Your task to perform on an android device: Turn on the flashlight Image 0: 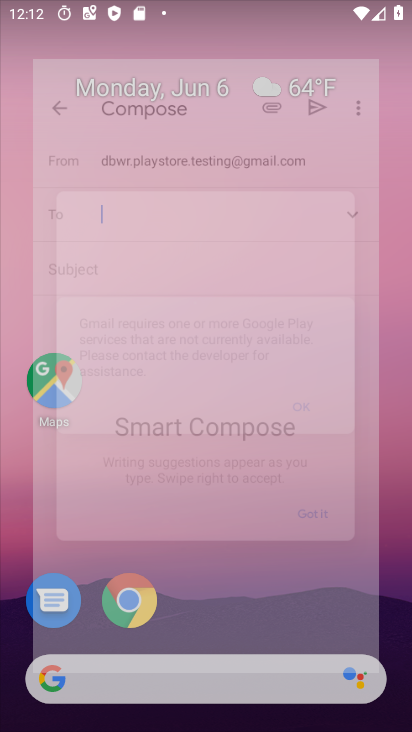
Step 0: click (212, 258)
Your task to perform on an android device: Turn on the flashlight Image 1: 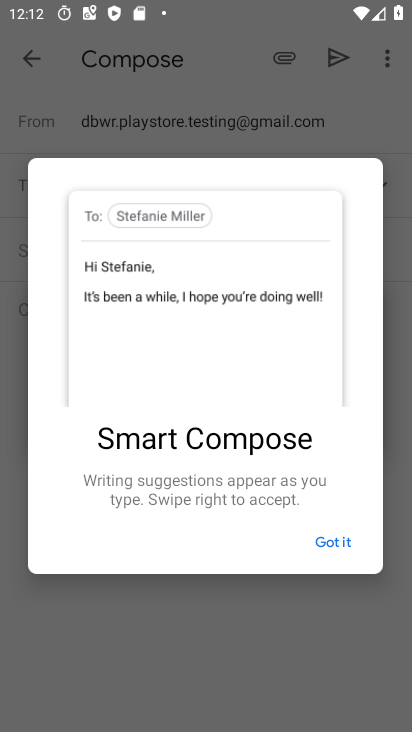
Step 1: click (334, 540)
Your task to perform on an android device: Turn on the flashlight Image 2: 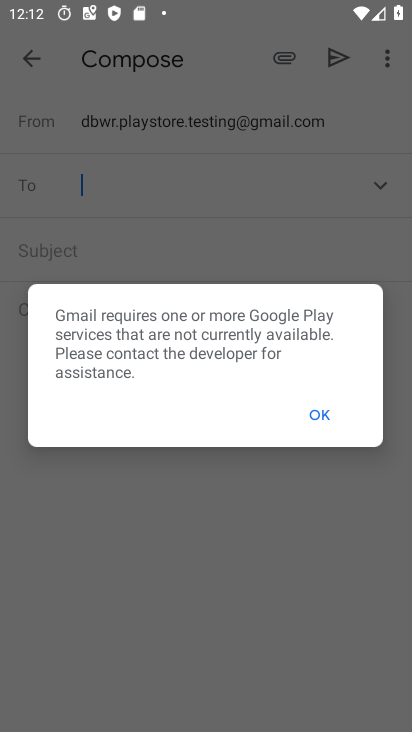
Step 2: click (319, 410)
Your task to perform on an android device: Turn on the flashlight Image 3: 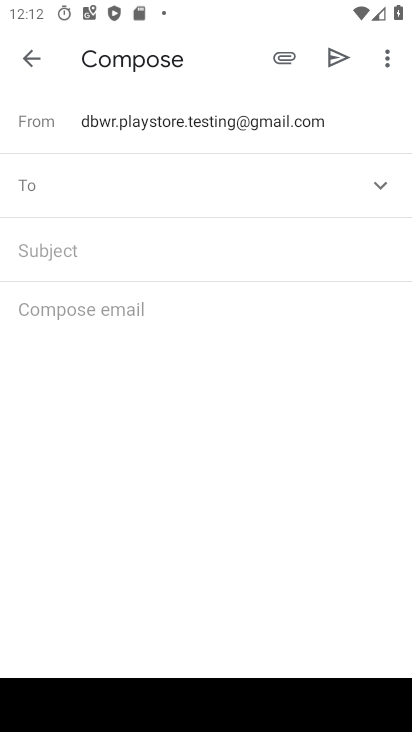
Step 3: click (22, 65)
Your task to perform on an android device: Turn on the flashlight Image 4: 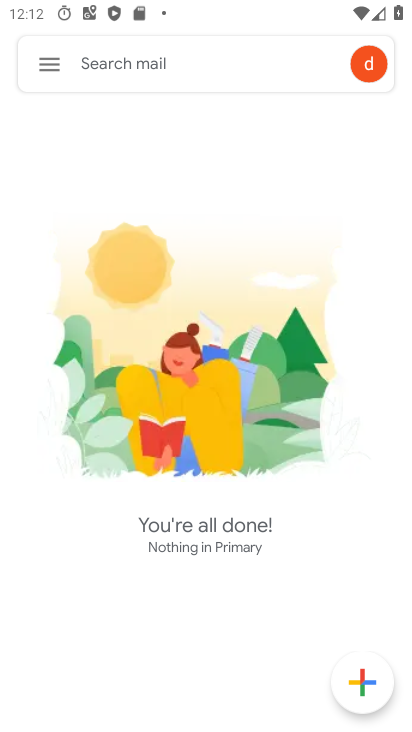
Step 4: task complete